Your task to perform on an android device: Go to Google Image 0: 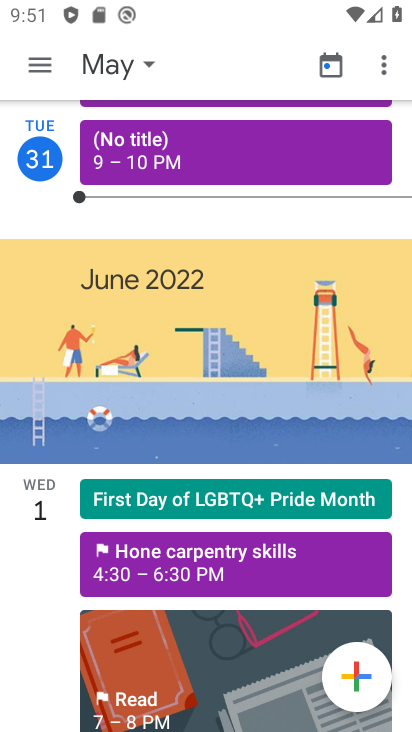
Step 0: press home button
Your task to perform on an android device: Go to Google Image 1: 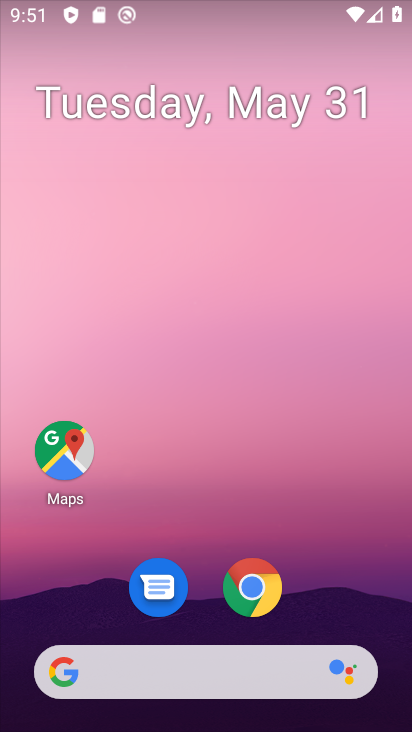
Step 1: drag from (216, 628) to (213, 131)
Your task to perform on an android device: Go to Google Image 2: 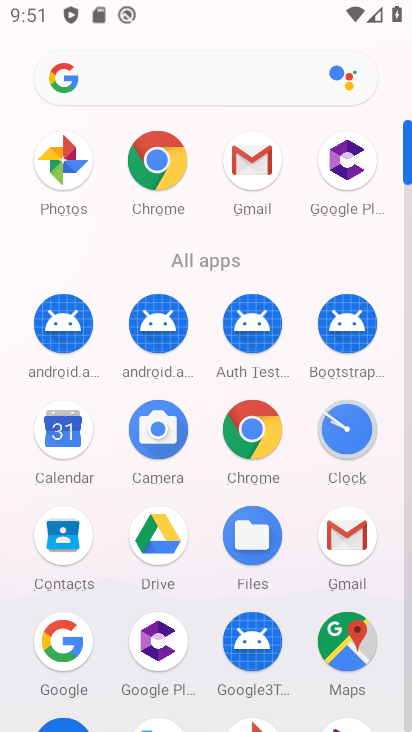
Step 2: click (64, 632)
Your task to perform on an android device: Go to Google Image 3: 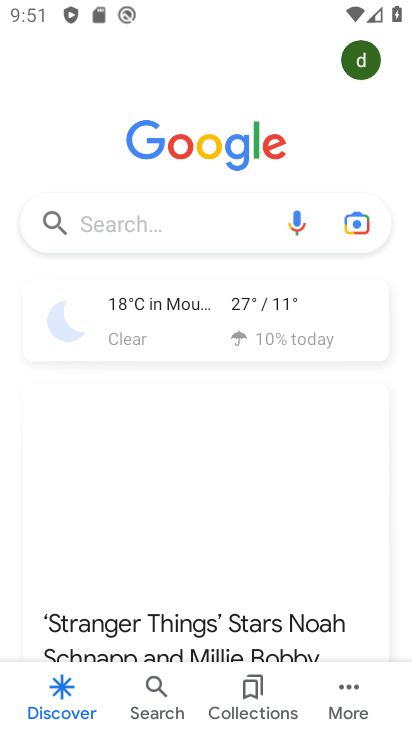
Step 3: task complete